Your task to perform on an android device: turn off javascript in the chrome app Image 0: 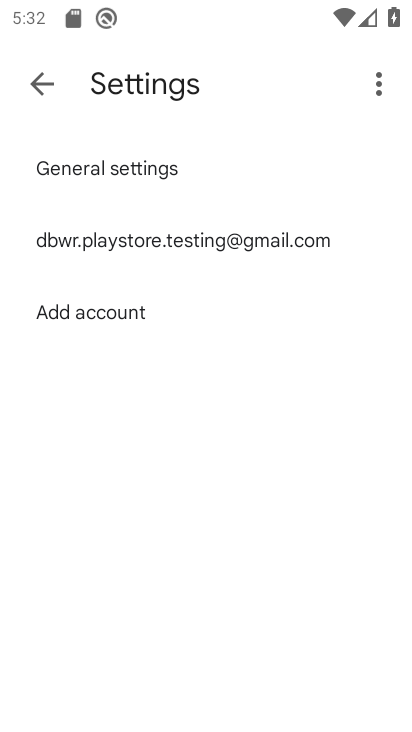
Step 0: task impossible